Your task to perform on an android device: Open ESPN.com Image 0: 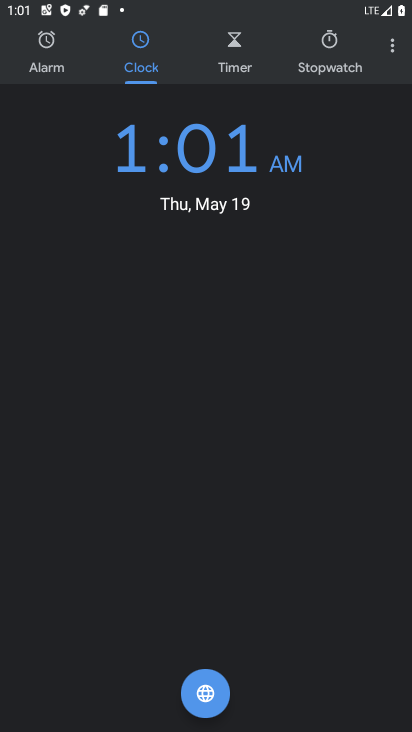
Step 0: press home button
Your task to perform on an android device: Open ESPN.com Image 1: 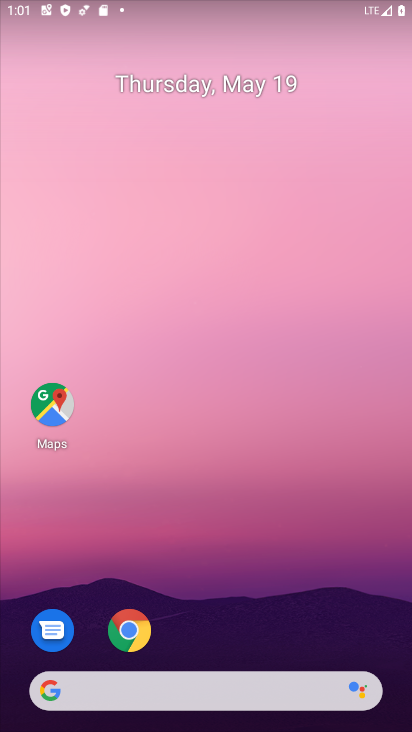
Step 1: click (140, 628)
Your task to perform on an android device: Open ESPN.com Image 2: 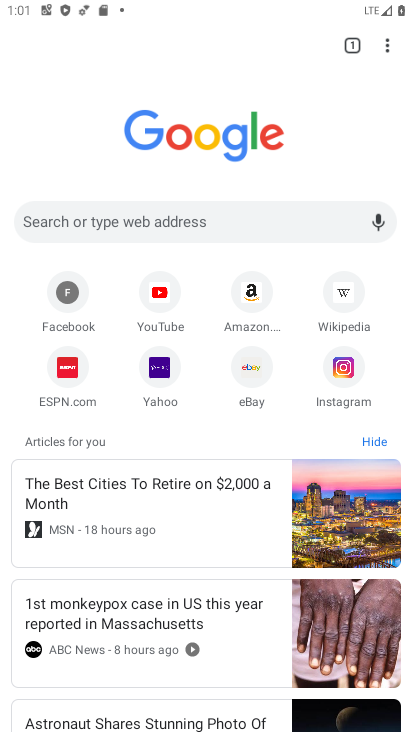
Step 2: click (75, 375)
Your task to perform on an android device: Open ESPN.com Image 3: 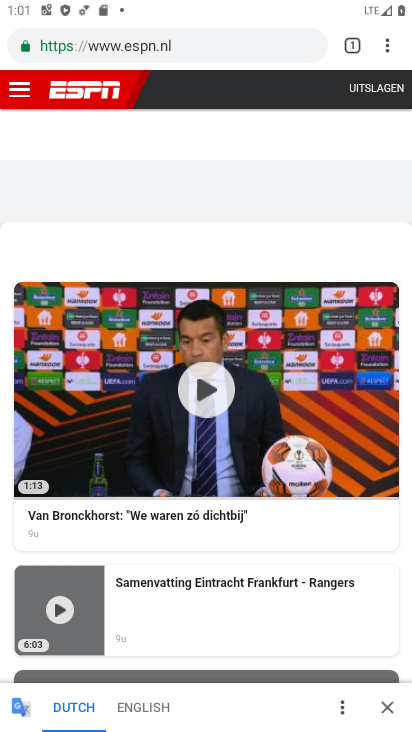
Step 3: task complete